Your task to perform on an android device: Open Android settings Image 0: 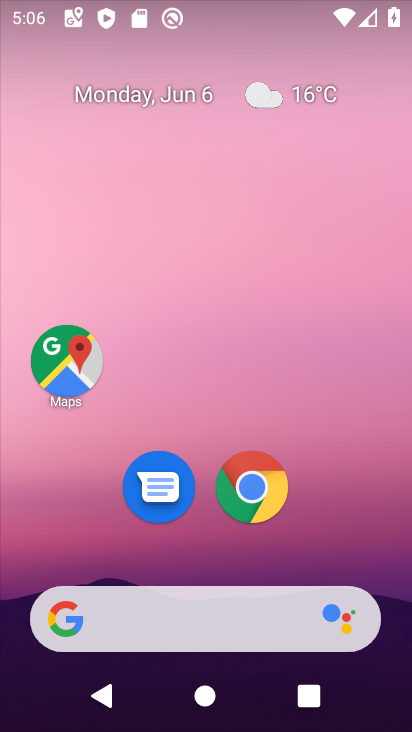
Step 0: drag from (215, 463) to (162, 0)
Your task to perform on an android device: Open Android settings Image 1: 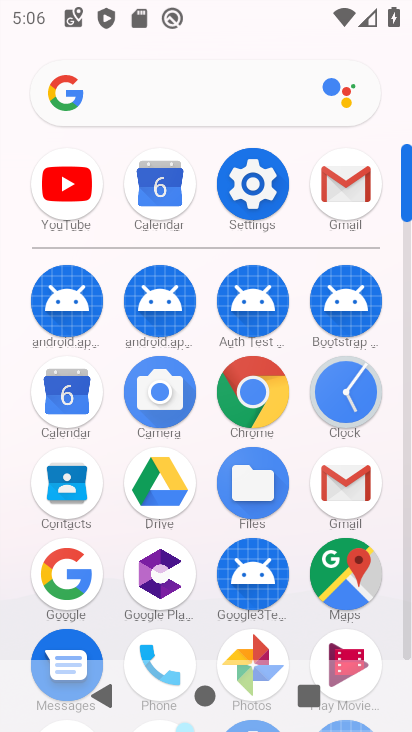
Step 1: click (240, 179)
Your task to perform on an android device: Open Android settings Image 2: 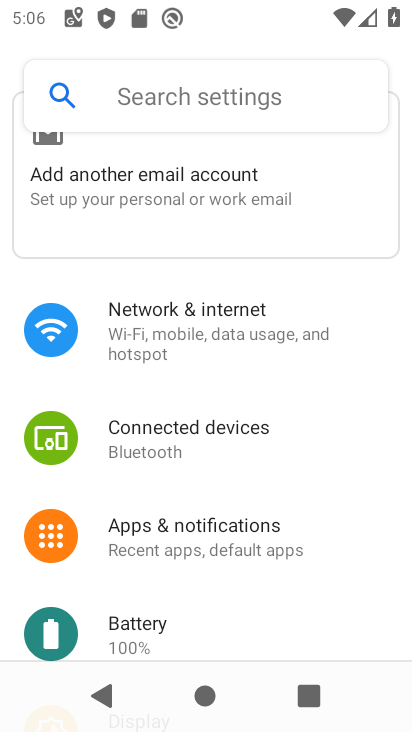
Step 2: drag from (241, 454) to (229, 9)
Your task to perform on an android device: Open Android settings Image 3: 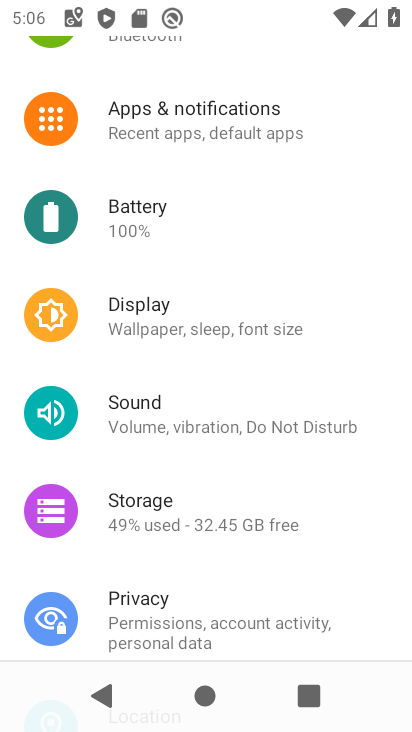
Step 3: drag from (239, 585) to (238, 1)
Your task to perform on an android device: Open Android settings Image 4: 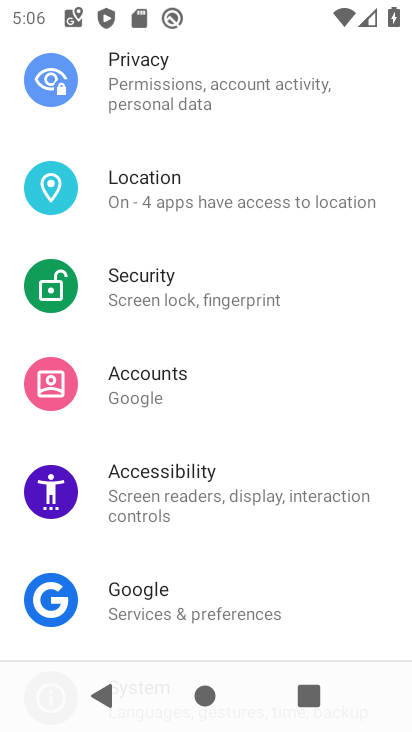
Step 4: drag from (222, 574) to (217, 25)
Your task to perform on an android device: Open Android settings Image 5: 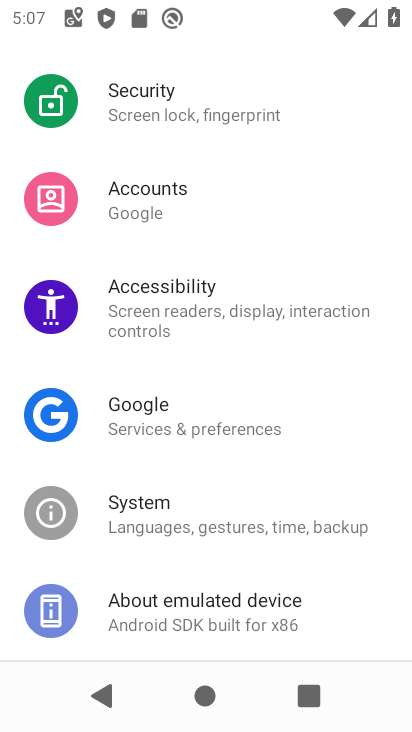
Step 5: click (176, 599)
Your task to perform on an android device: Open Android settings Image 6: 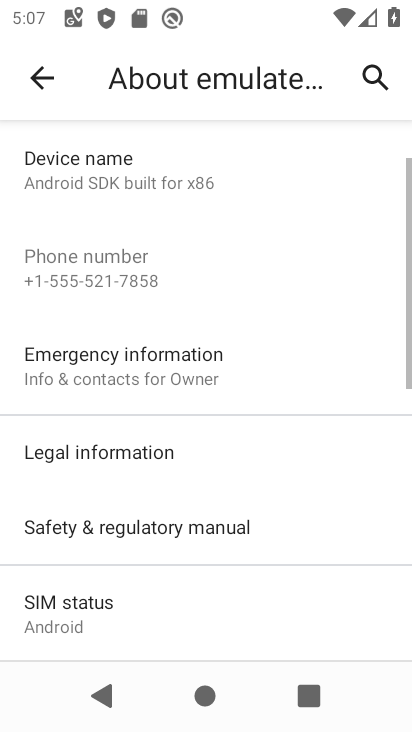
Step 6: task complete